Your task to perform on an android device: open a bookmark in the chrome app Image 0: 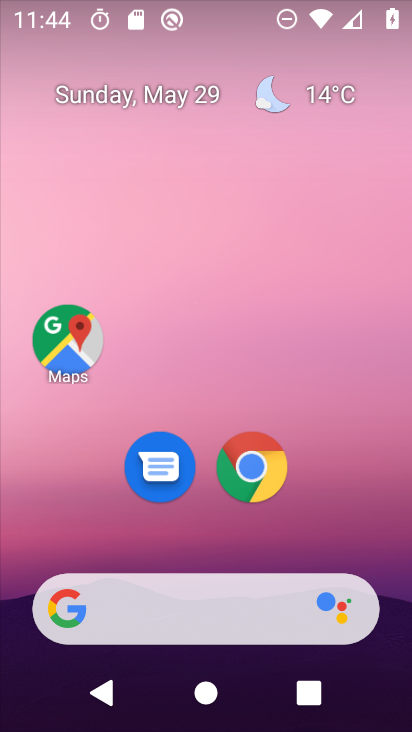
Step 0: click (259, 492)
Your task to perform on an android device: open a bookmark in the chrome app Image 1: 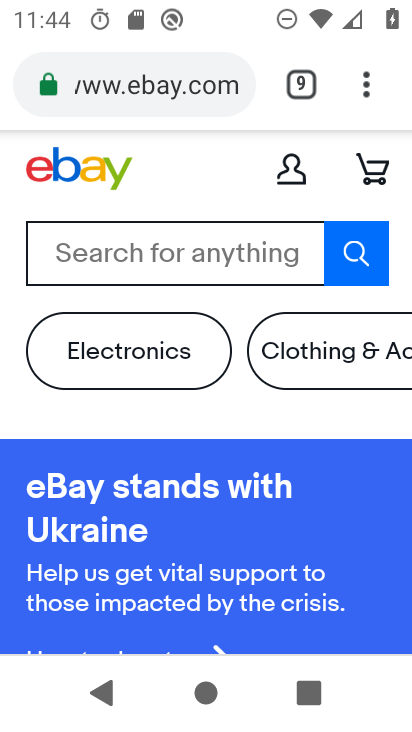
Step 1: click (366, 88)
Your task to perform on an android device: open a bookmark in the chrome app Image 2: 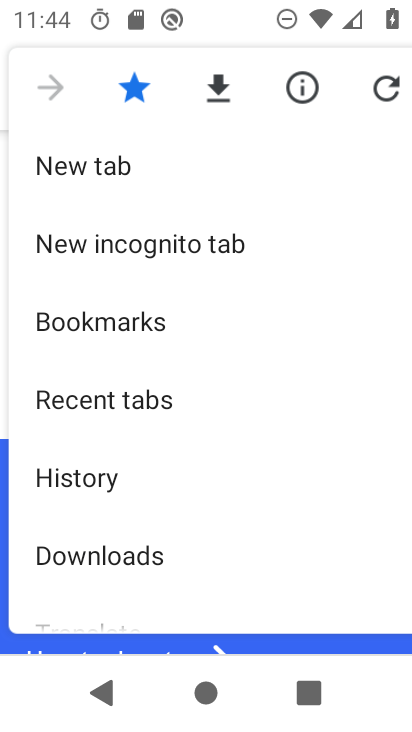
Step 2: click (127, 314)
Your task to perform on an android device: open a bookmark in the chrome app Image 3: 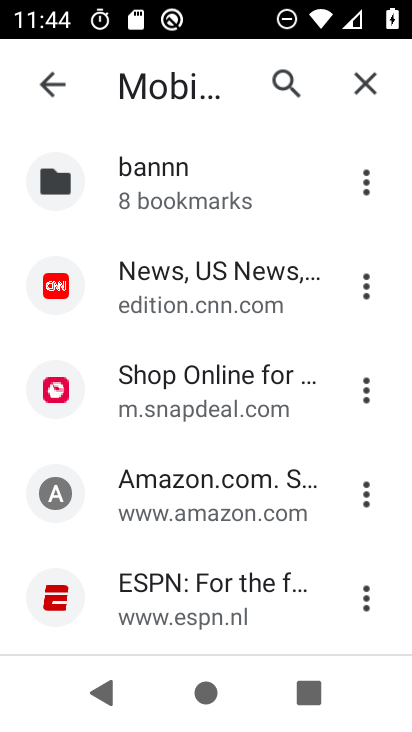
Step 3: drag from (169, 525) to (197, 273)
Your task to perform on an android device: open a bookmark in the chrome app Image 4: 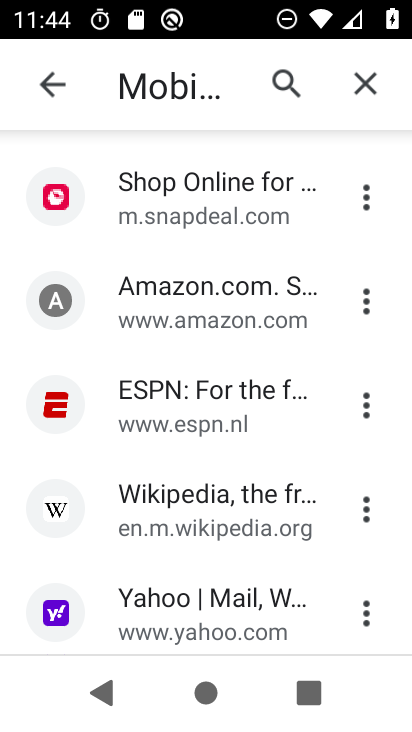
Step 4: click (199, 497)
Your task to perform on an android device: open a bookmark in the chrome app Image 5: 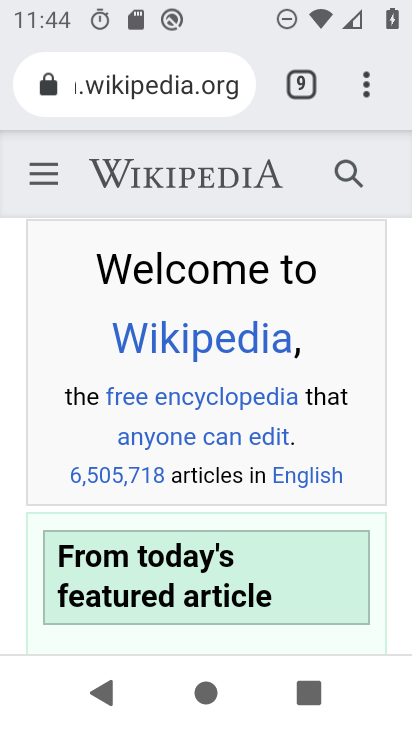
Step 5: task complete